Your task to perform on an android device: turn on improve location accuracy Image 0: 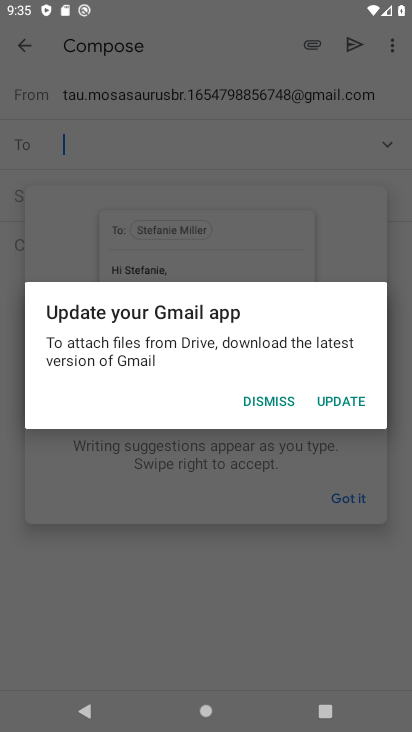
Step 0: press home button
Your task to perform on an android device: turn on improve location accuracy Image 1: 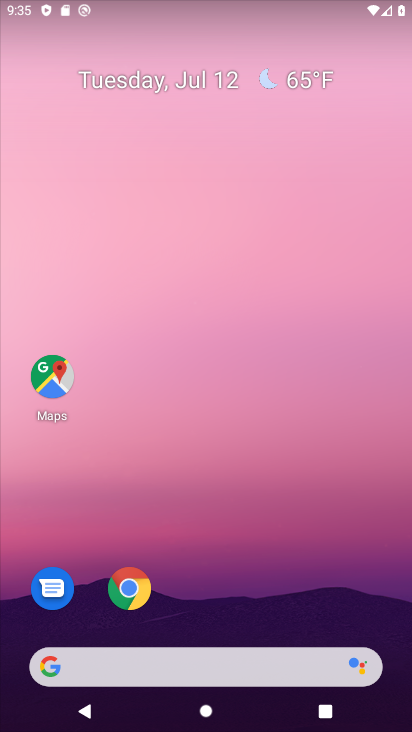
Step 1: drag from (18, 707) to (260, 7)
Your task to perform on an android device: turn on improve location accuracy Image 2: 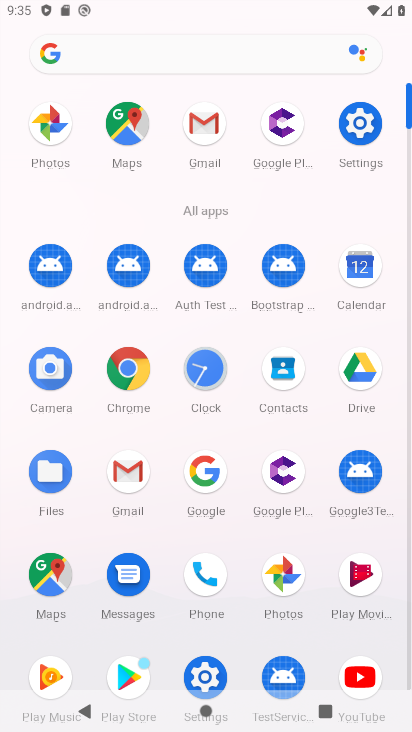
Step 2: click (204, 673)
Your task to perform on an android device: turn on improve location accuracy Image 3: 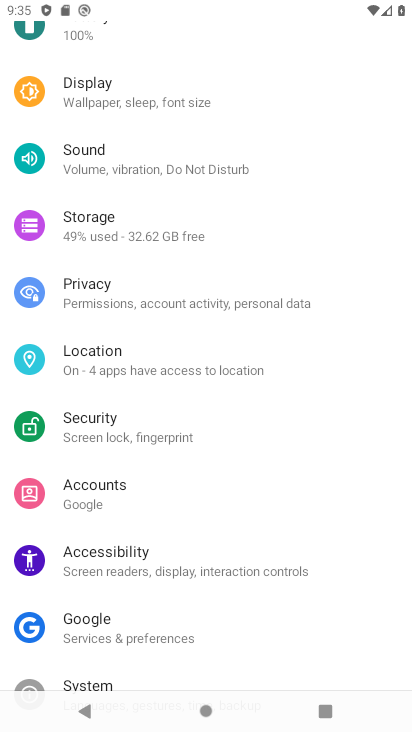
Step 3: click (129, 356)
Your task to perform on an android device: turn on improve location accuracy Image 4: 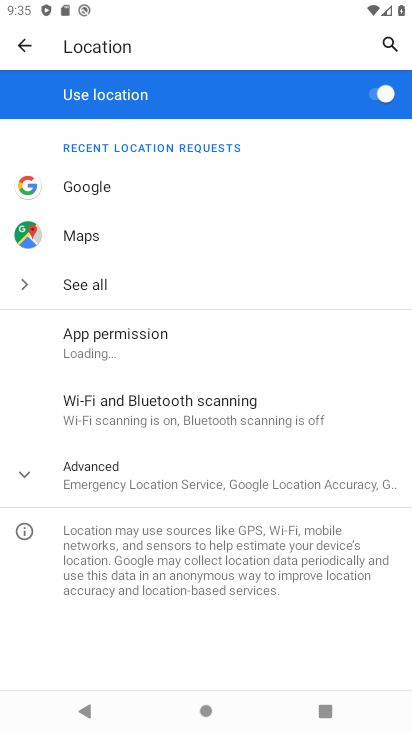
Step 4: click (109, 478)
Your task to perform on an android device: turn on improve location accuracy Image 5: 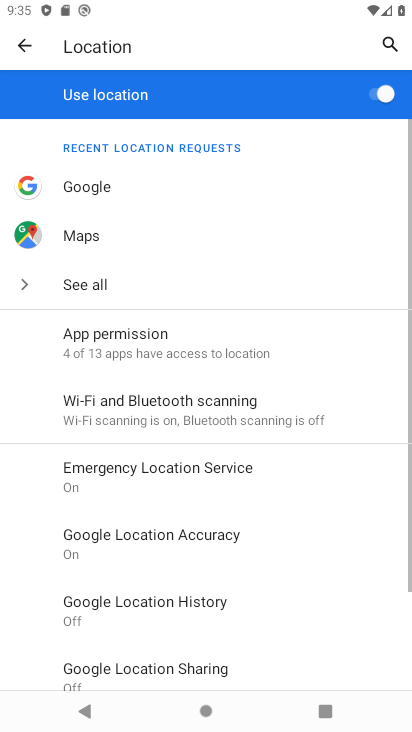
Step 5: click (132, 540)
Your task to perform on an android device: turn on improve location accuracy Image 6: 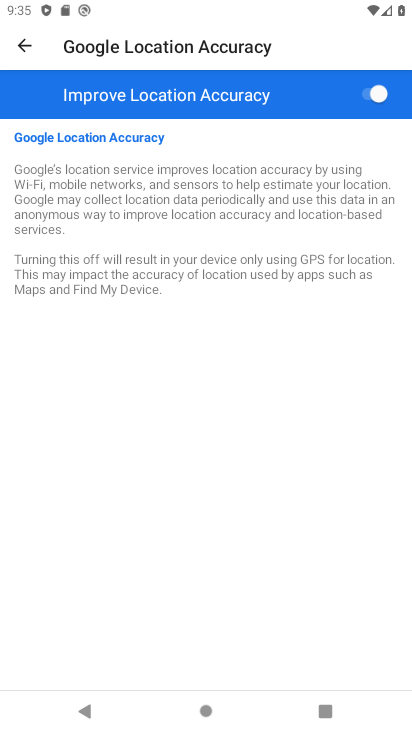
Step 6: task complete